Your task to perform on an android device: star an email in the gmail app Image 0: 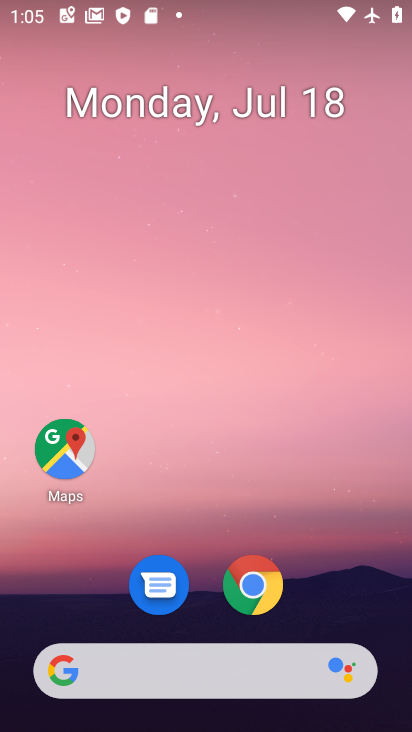
Step 0: drag from (210, 674) to (304, 158)
Your task to perform on an android device: star an email in the gmail app Image 1: 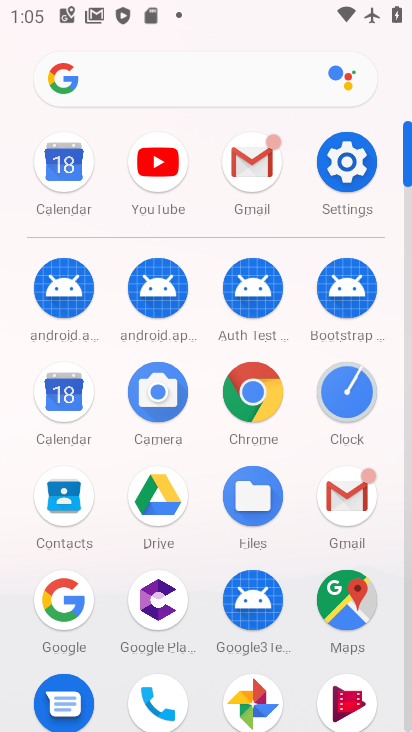
Step 1: click (248, 178)
Your task to perform on an android device: star an email in the gmail app Image 2: 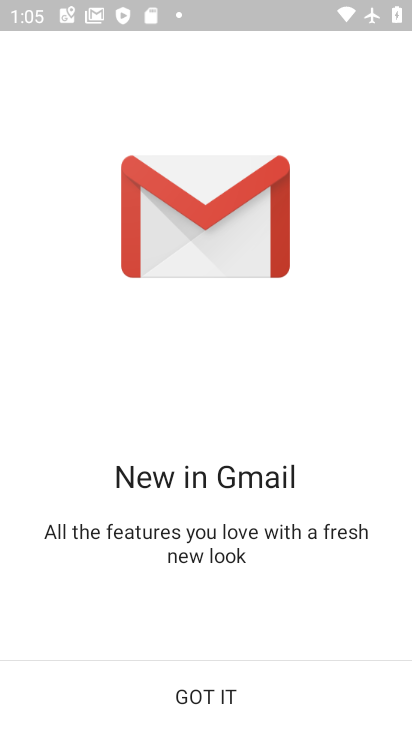
Step 2: click (215, 702)
Your task to perform on an android device: star an email in the gmail app Image 3: 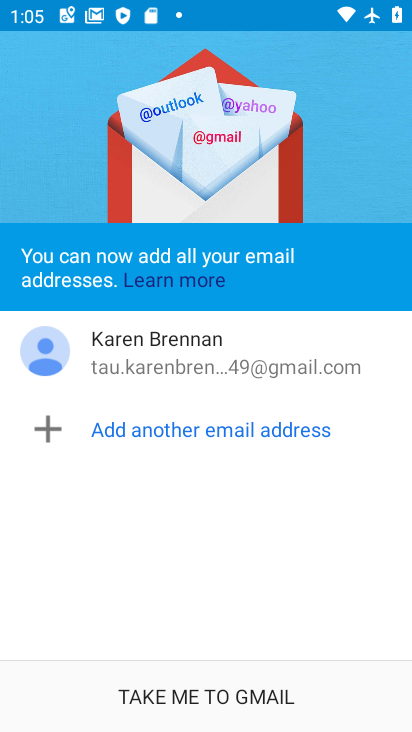
Step 3: click (215, 702)
Your task to perform on an android device: star an email in the gmail app Image 4: 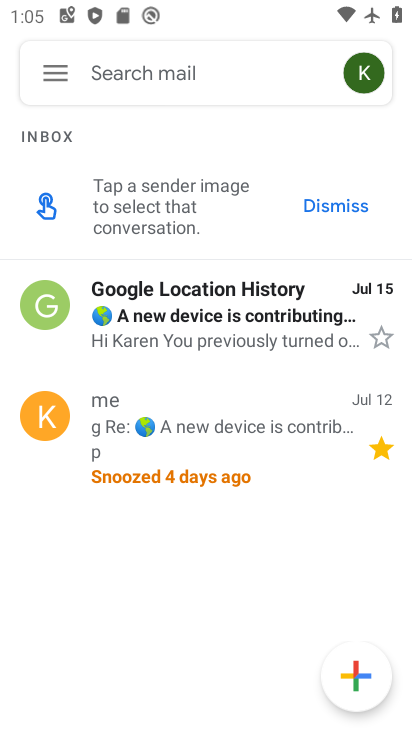
Step 4: click (47, 306)
Your task to perform on an android device: star an email in the gmail app Image 5: 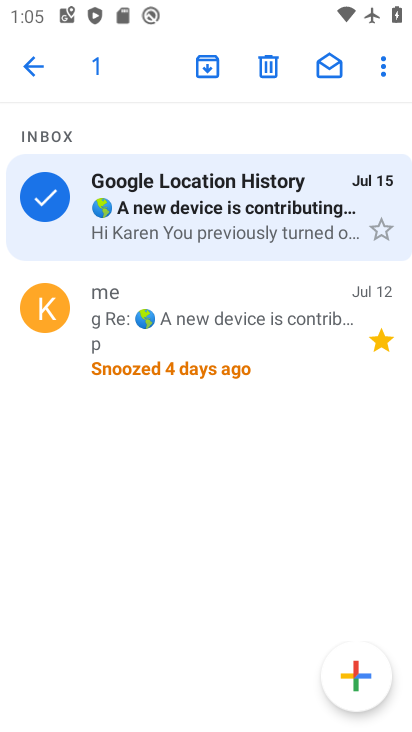
Step 5: click (386, 73)
Your task to perform on an android device: star an email in the gmail app Image 6: 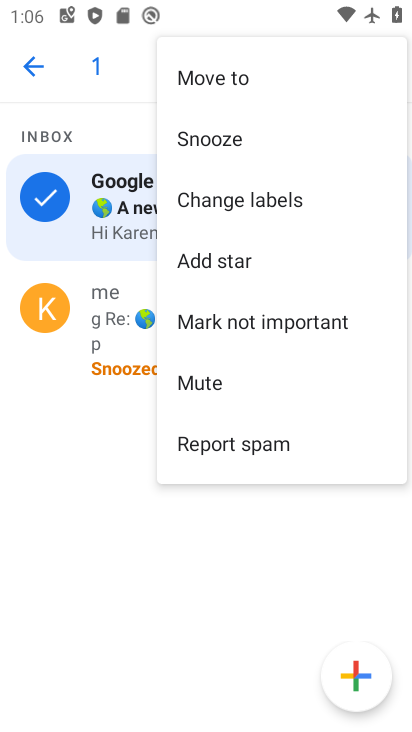
Step 6: click (221, 258)
Your task to perform on an android device: star an email in the gmail app Image 7: 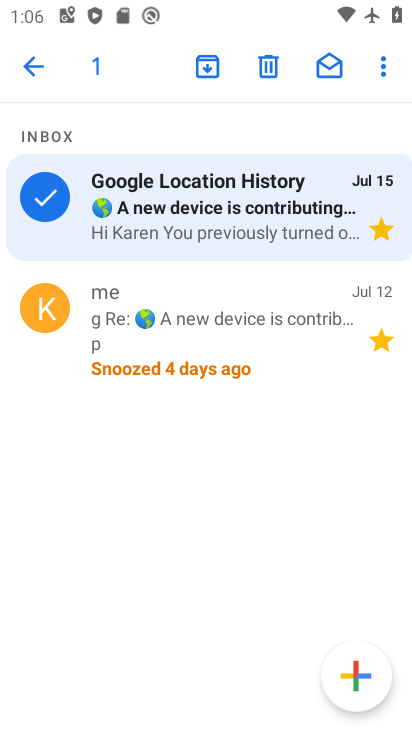
Step 7: task complete